Your task to perform on an android device: Show me recent news Image 0: 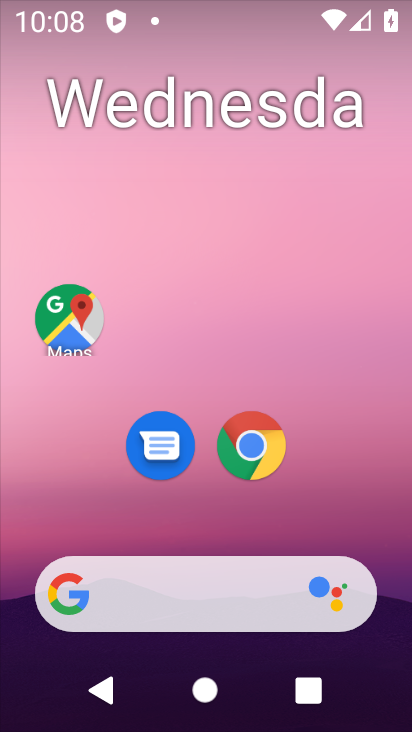
Step 0: drag from (221, 524) to (202, 156)
Your task to perform on an android device: Show me recent news Image 1: 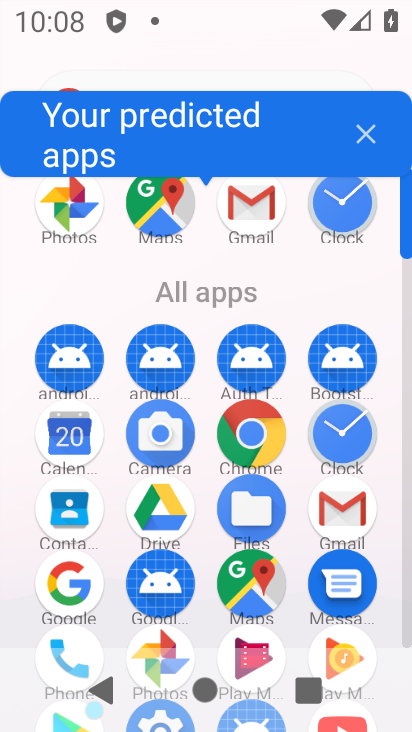
Step 1: click (79, 580)
Your task to perform on an android device: Show me recent news Image 2: 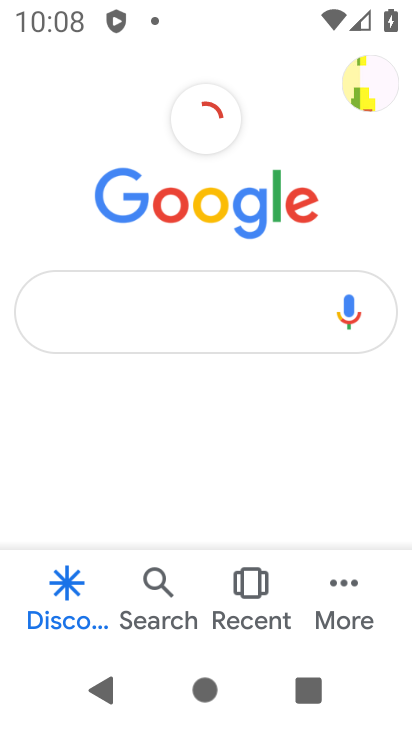
Step 2: click (199, 316)
Your task to perform on an android device: Show me recent news Image 3: 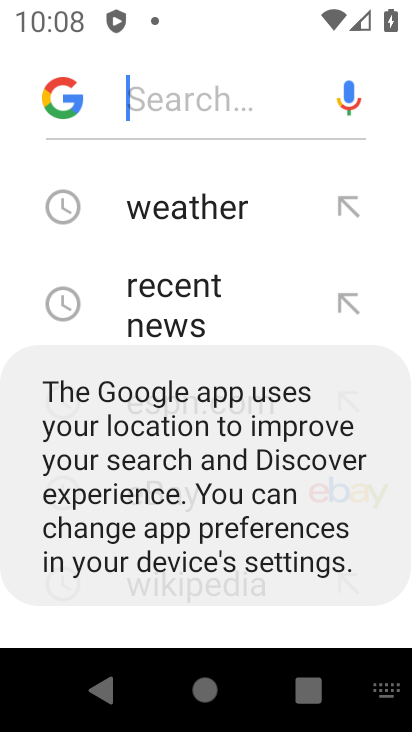
Step 3: click (162, 307)
Your task to perform on an android device: Show me recent news Image 4: 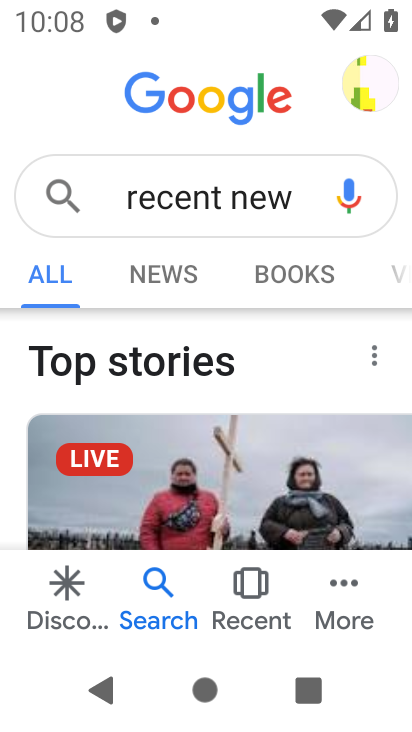
Step 4: drag from (247, 414) to (251, 201)
Your task to perform on an android device: Show me recent news Image 5: 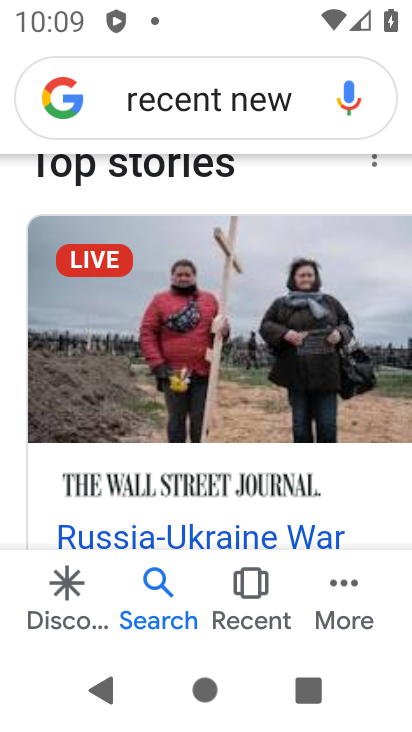
Step 5: click (252, 302)
Your task to perform on an android device: Show me recent news Image 6: 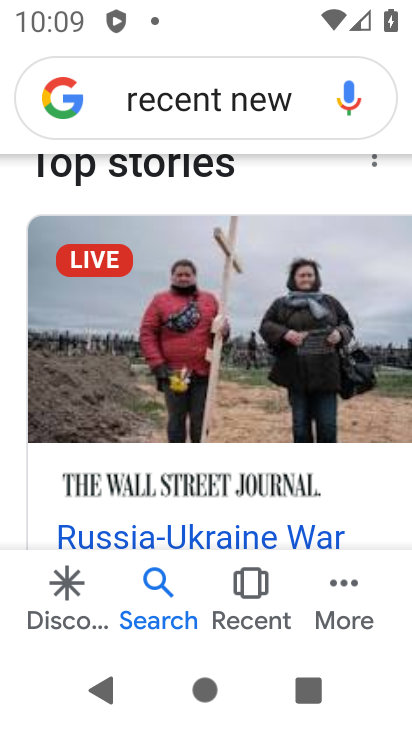
Step 6: task complete